Your task to perform on an android device: open the mobile data screen to see how much data has been used Image 0: 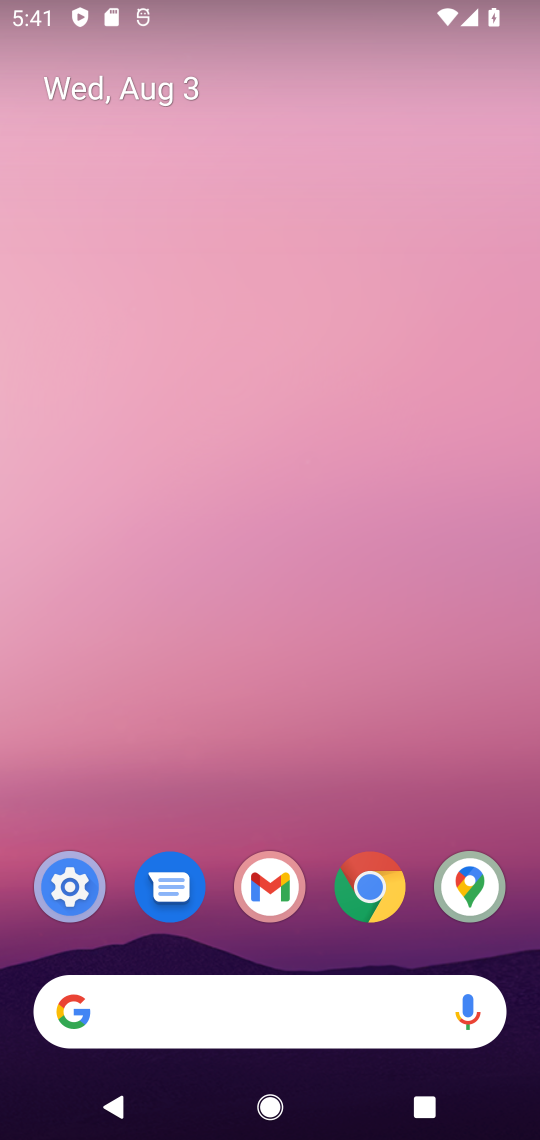
Step 0: drag from (292, 955) to (162, 72)
Your task to perform on an android device: open the mobile data screen to see how much data has been used Image 1: 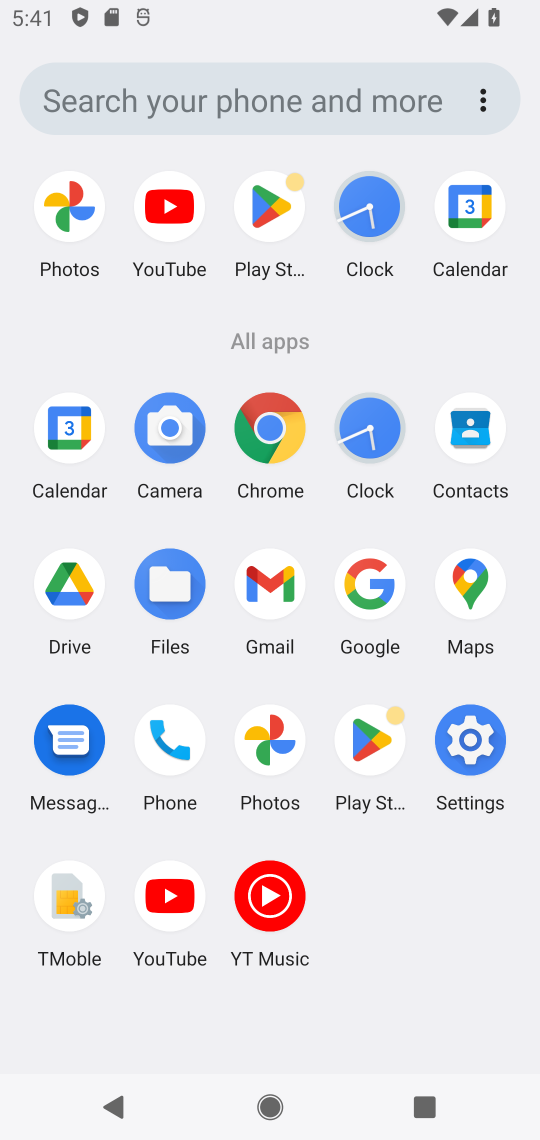
Step 1: click (448, 740)
Your task to perform on an android device: open the mobile data screen to see how much data has been used Image 2: 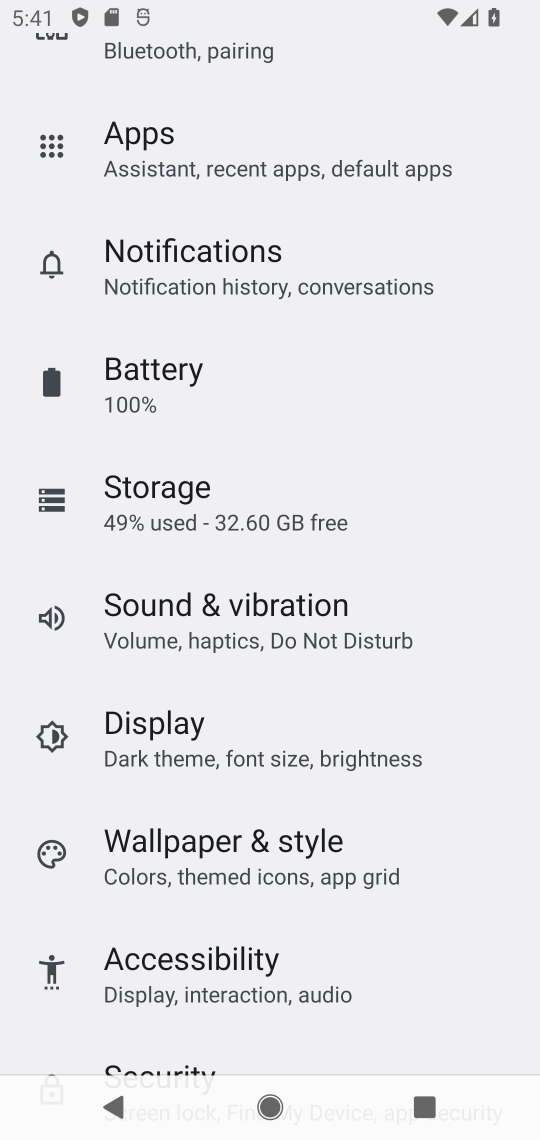
Step 2: drag from (156, 296) to (189, 912)
Your task to perform on an android device: open the mobile data screen to see how much data has been used Image 3: 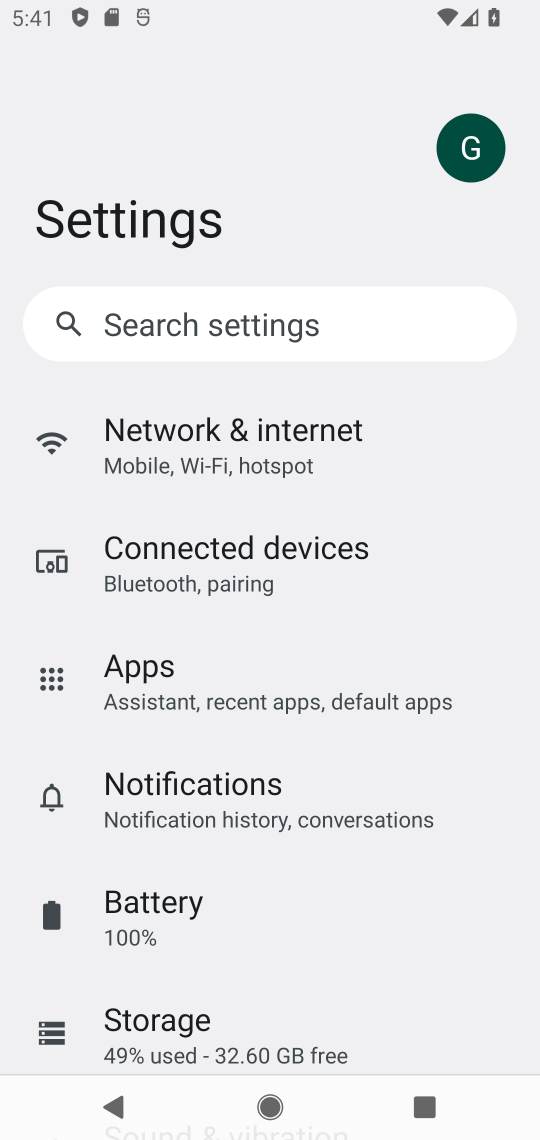
Step 3: click (205, 474)
Your task to perform on an android device: open the mobile data screen to see how much data has been used Image 4: 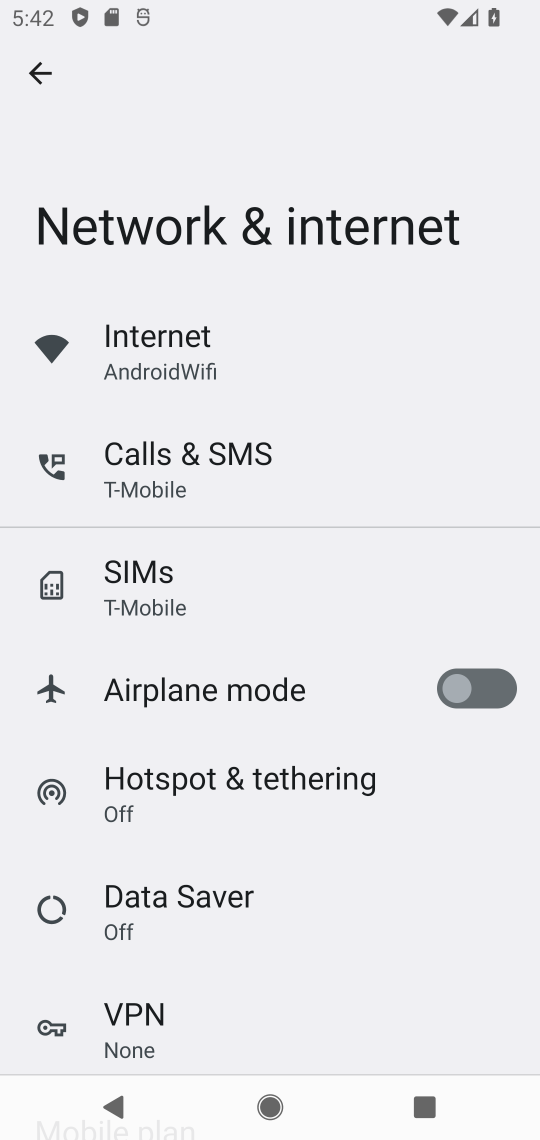
Step 4: click (136, 380)
Your task to perform on an android device: open the mobile data screen to see how much data has been used Image 5: 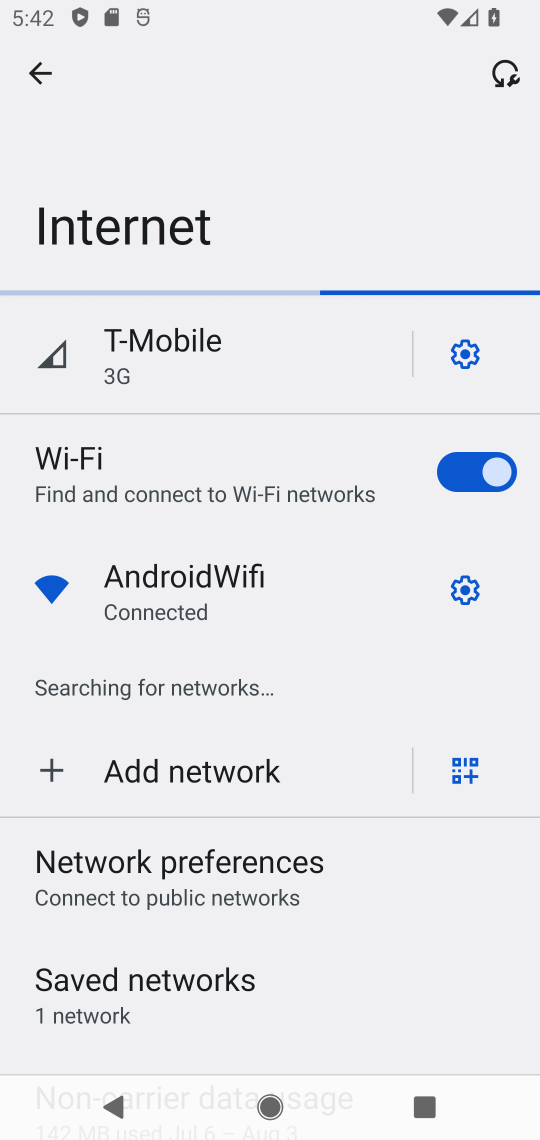
Step 5: task complete